Your task to perform on an android device: Open Google Maps Image 0: 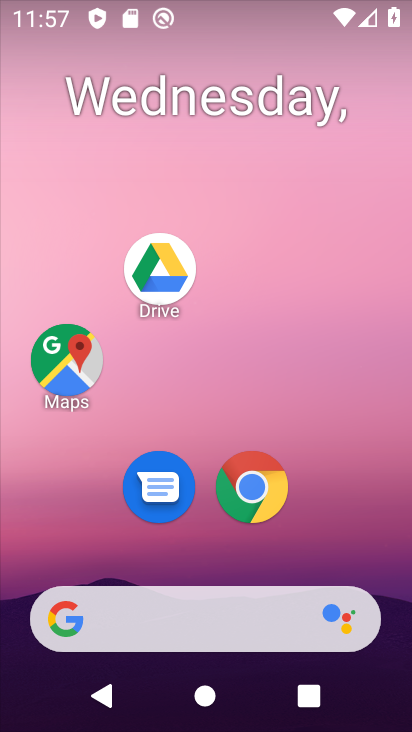
Step 0: click (64, 377)
Your task to perform on an android device: Open Google Maps Image 1: 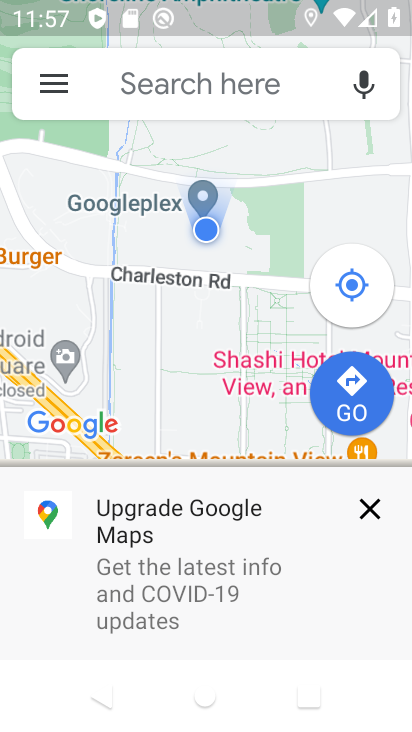
Step 1: task complete